Your task to perform on an android device: change your default location settings in chrome Image 0: 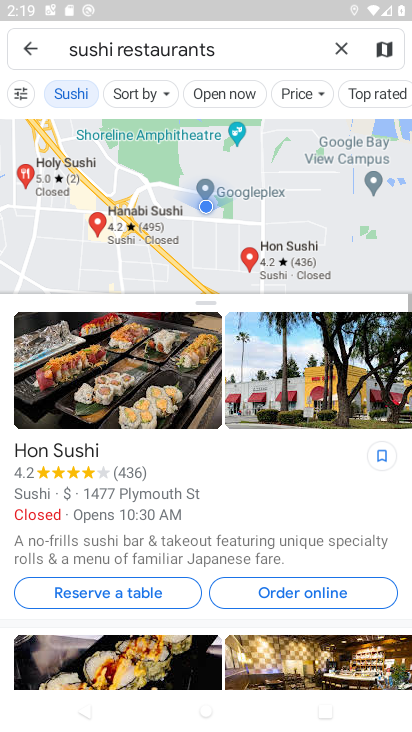
Step 0: press home button
Your task to perform on an android device: change your default location settings in chrome Image 1: 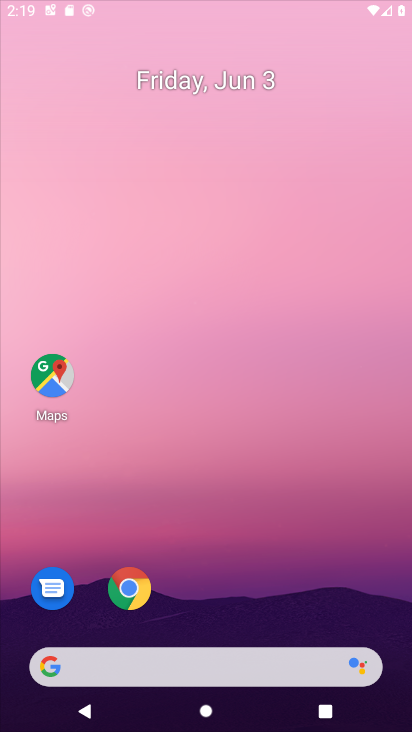
Step 1: drag from (245, 672) to (256, 31)
Your task to perform on an android device: change your default location settings in chrome Image 2: 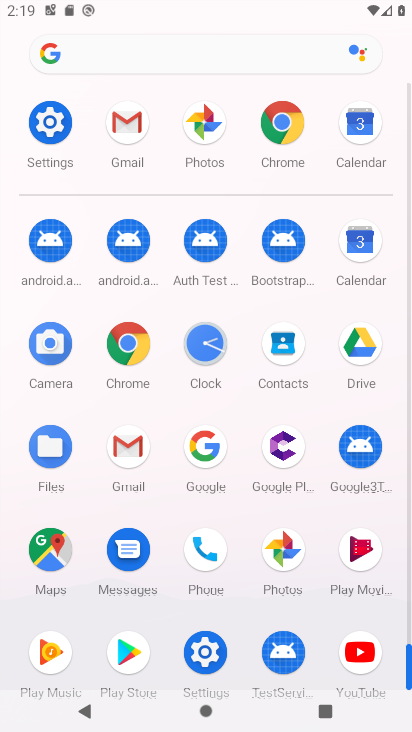
Step 2: click (293, 136)
Your task to perform on an android device: change your default location settings in chrome Image 3: 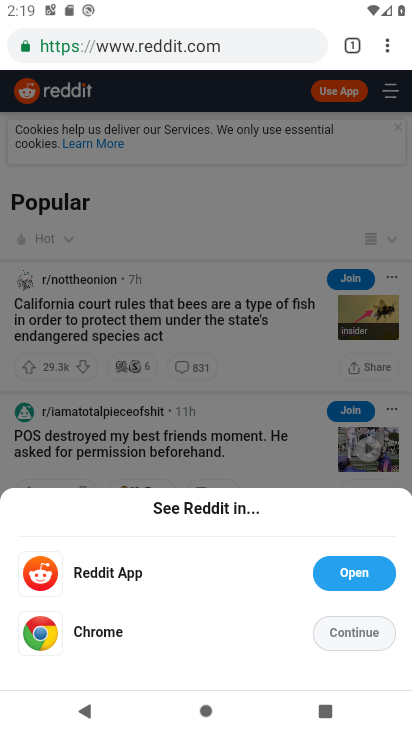
Step 3: click (384, 38)
Your task to perform on an android device: change your default location settings in chrome Image 4: 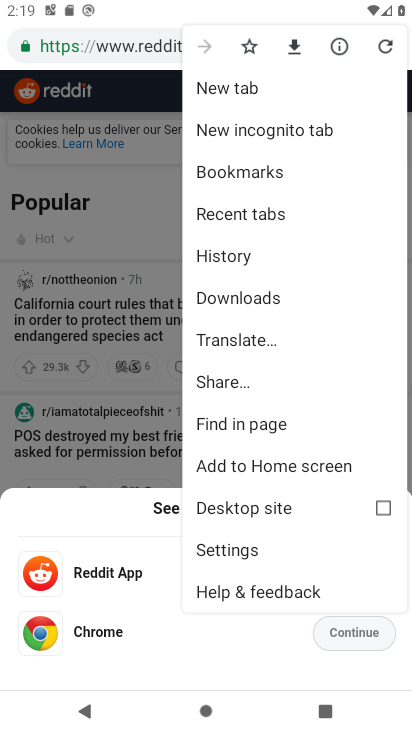
Step 4: click (251, 545)
Your task to perform on an android device: change your default location settings in chrome Image 5: 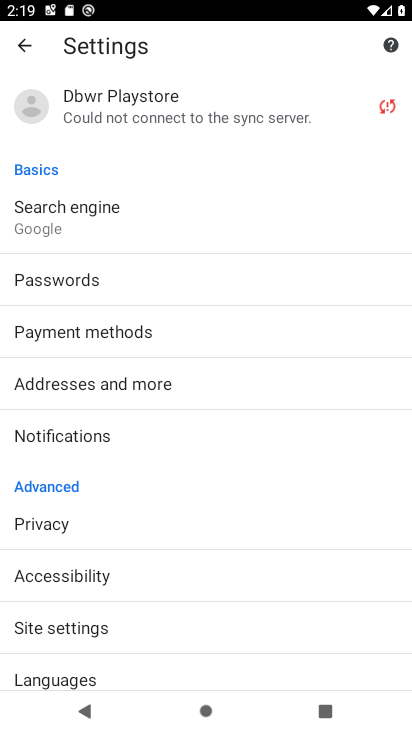
Step 5: drag from (164, 608) to (198, 237)
Your task to perform on an android device: change your default location settings in chrome Image 6: 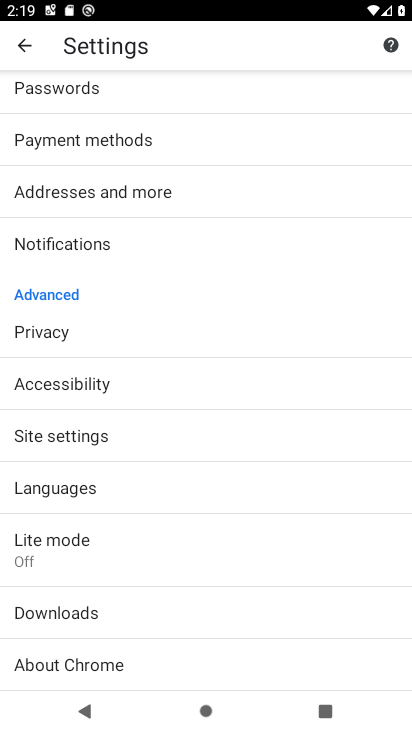
Step 6: drag from (158, 240) to (173, 656)
Your task to perform on an android device: change your default location settings in chrome Image 7: 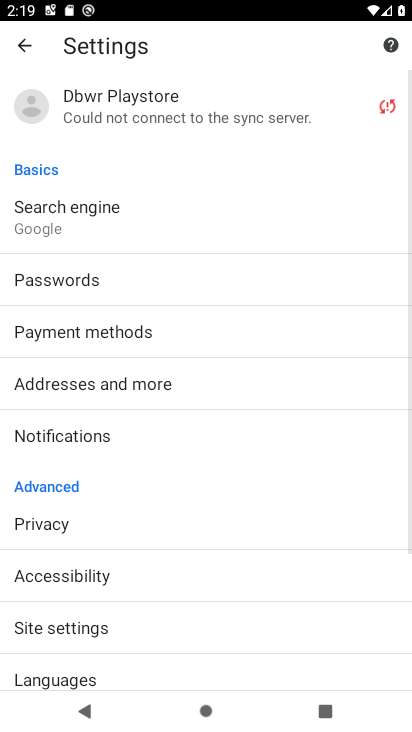
Step 7: click (125, 224)
Your task to perform on an android device: change your default location settings in chrome Image 8: 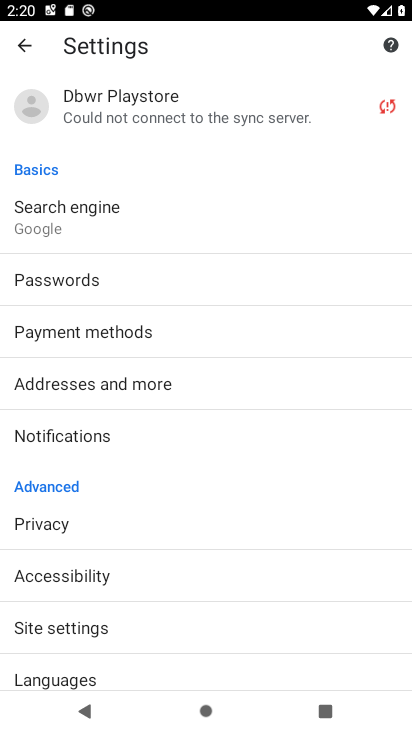
Step 8: click (109, 197)
Your task to perform on an android device: change your default location settings in chrome Image 9: 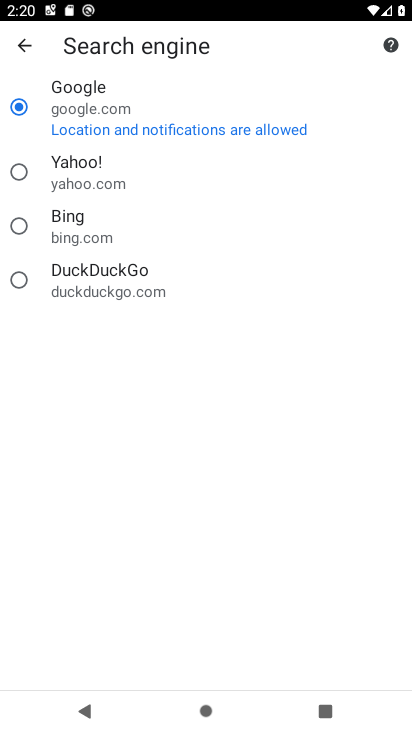
Step 9: task complete